Your task to perform on an android device: How do I get to the nearest Subway? Image 0: 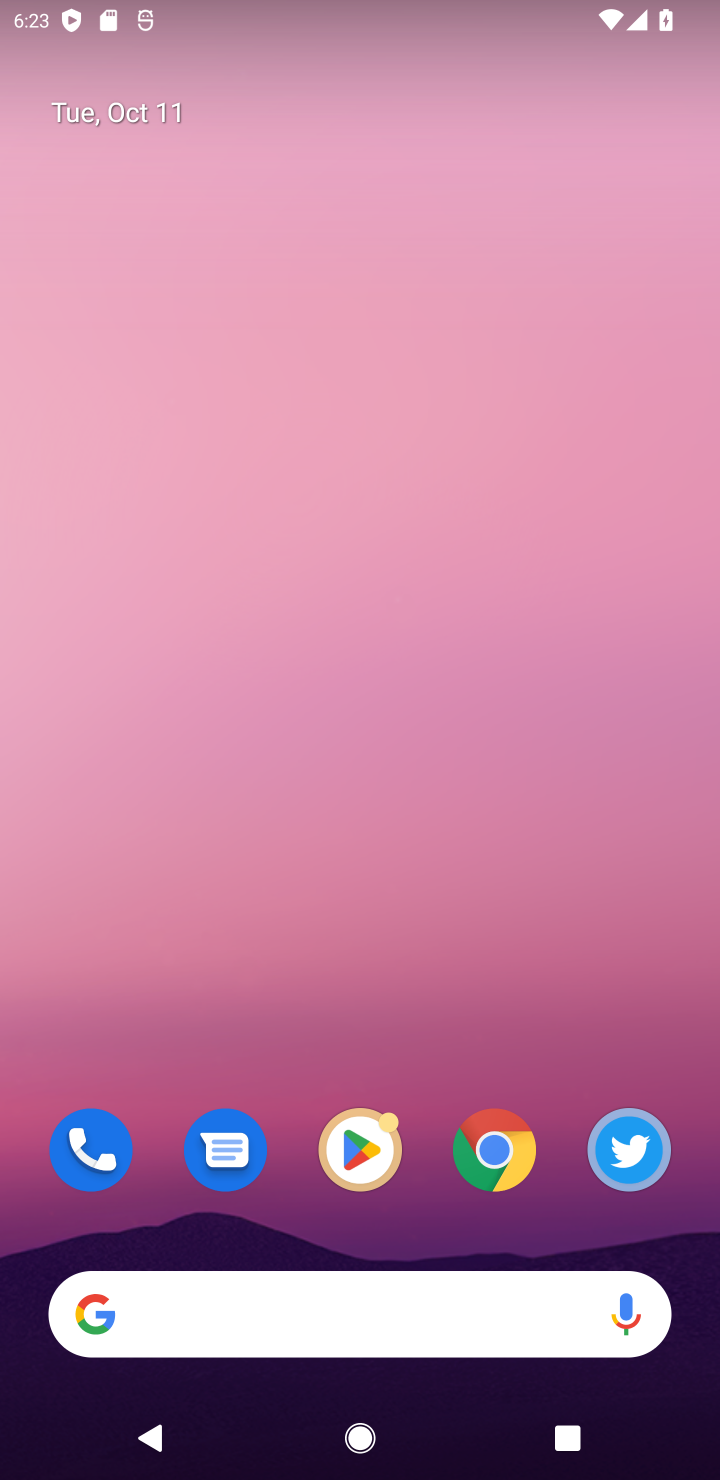
Step 0: click (501, 1167)
Your task to perform on an android device: How do I get to the nearest Subway? Image 1: 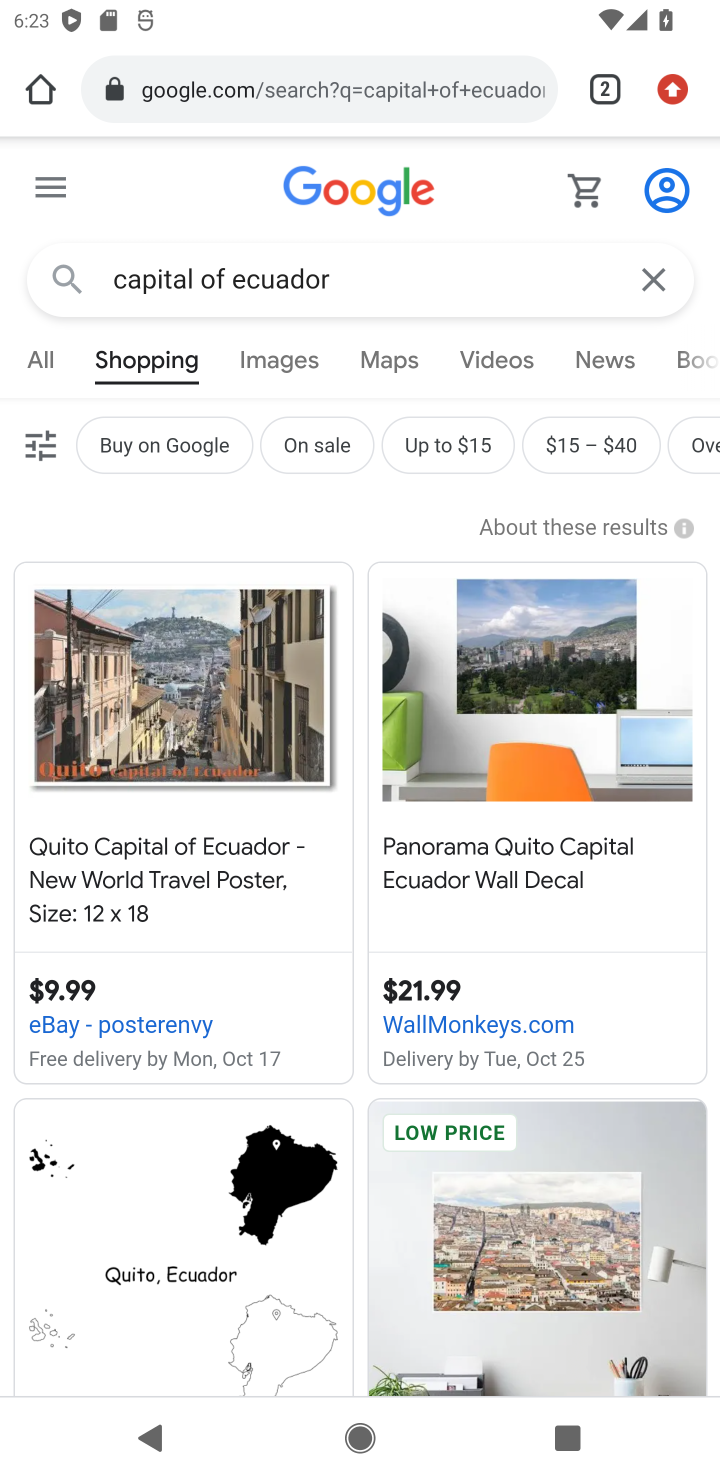
Step 1: click (642, 274)
Your task to perform on an android device: How do I get to the nearest Subway? Image 2: 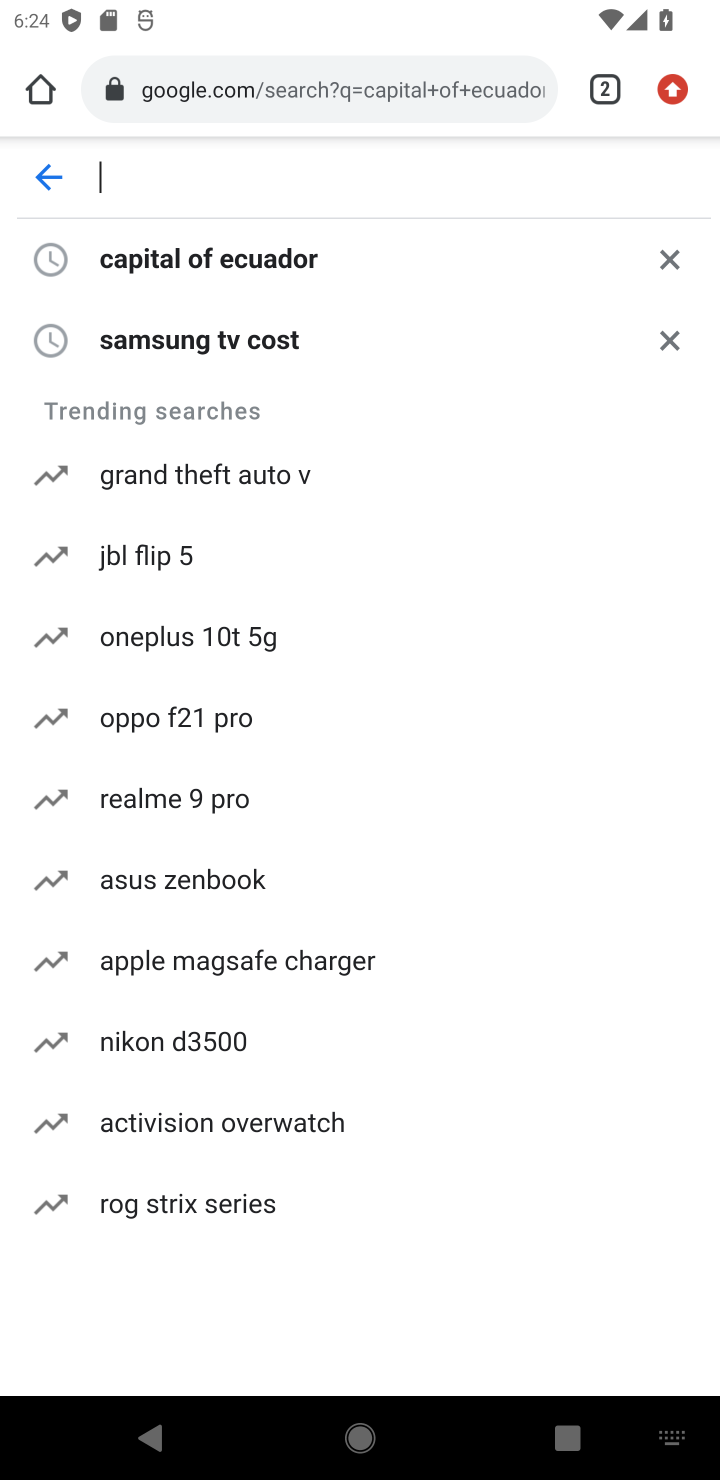
Step 2: type "nearest subway"
Your task to perform on an android device: How do I get to the nearest Subway? Image 3: 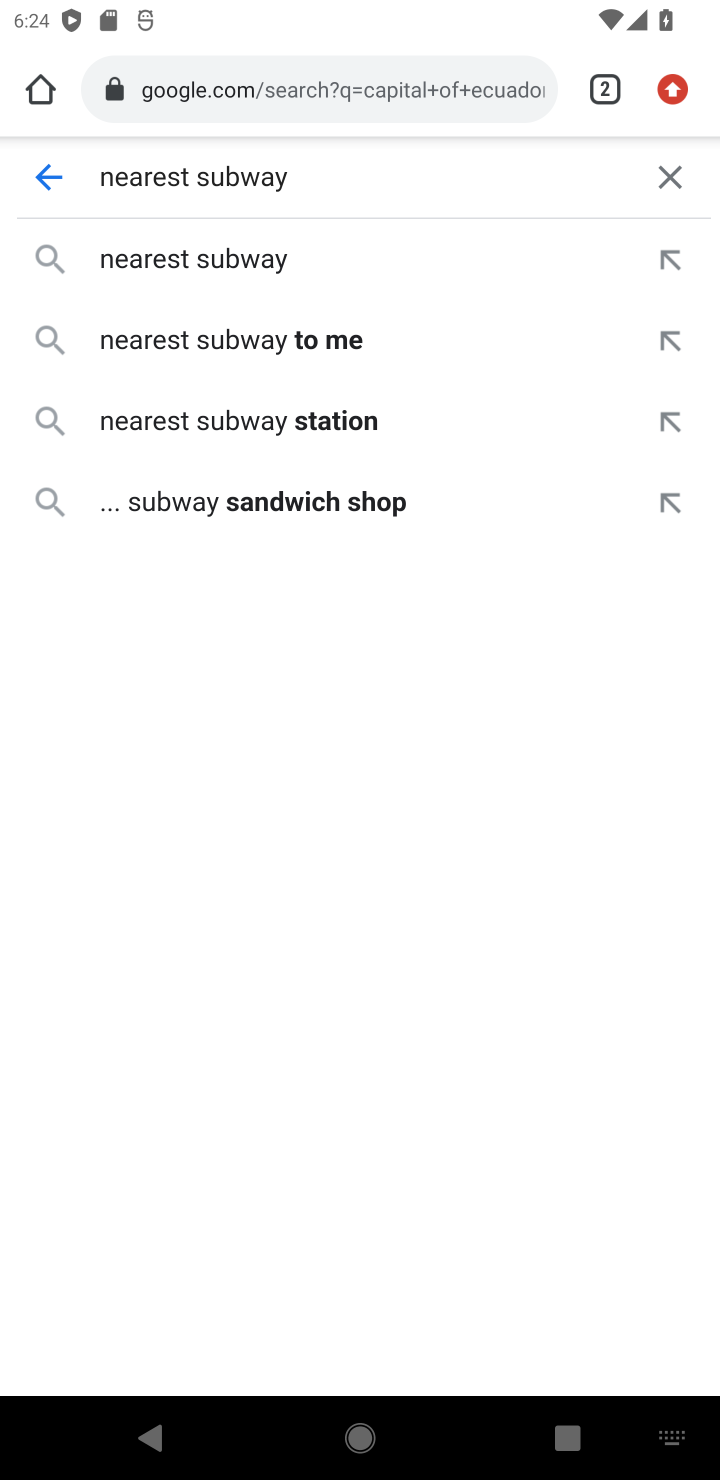
Step 3: click (243, 275)
Your task to perform on an android device: How do I get to the nearest Subway? Image 4: 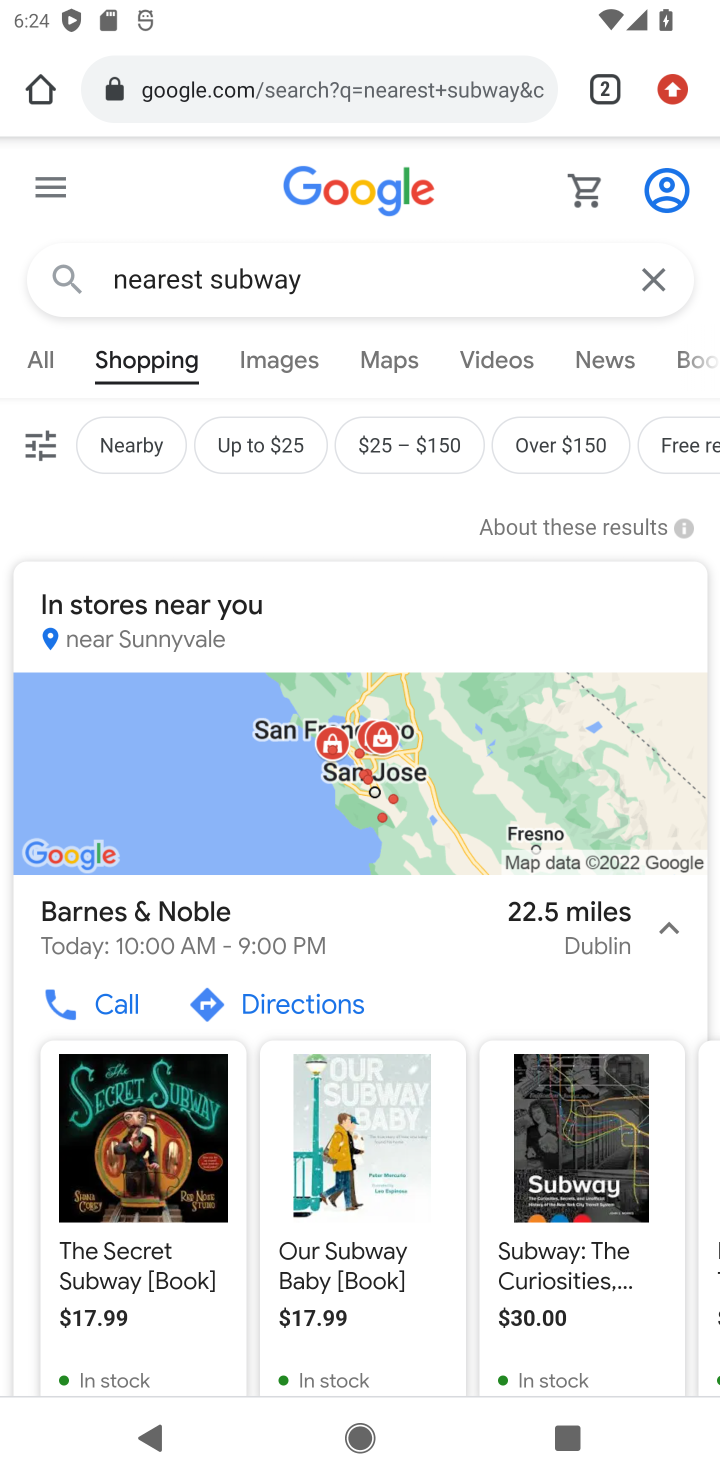
Step 4: click (45, 359)
Your task to perform on an android device: How do I get to the nearest Subway? Image 5: 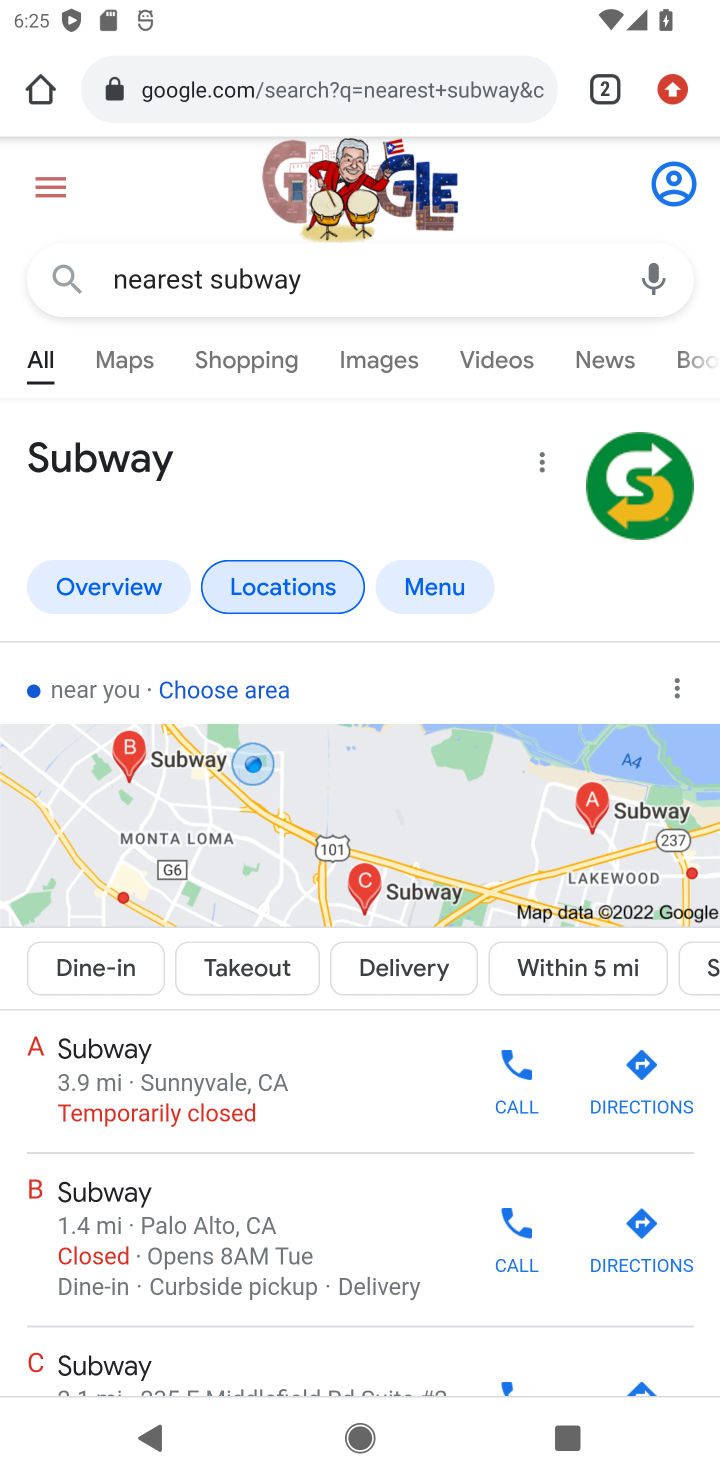
Step 5: task complete